Your task to perform on an android device: What is the recent news? Image 0: 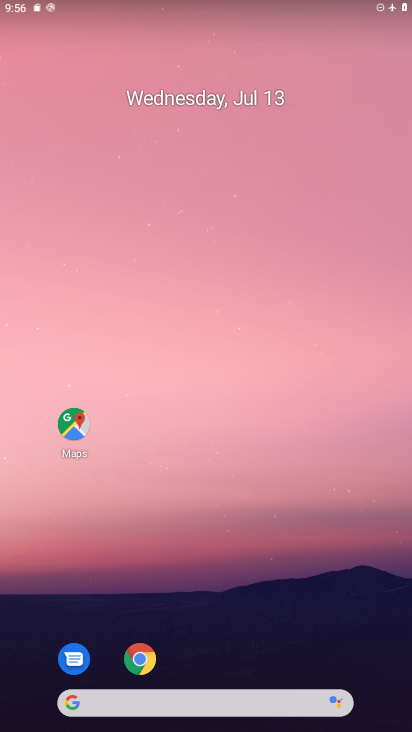
Step 0: drag from (175, 5) to (182, 502)
Your task to perform on an android device: What is the recent news? Image 1: 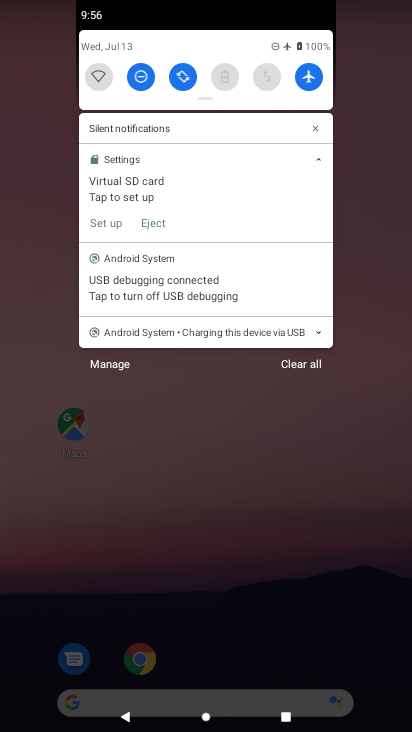
Step 1: click (308, 74)
Your task to perform on an android device: What is the recent news? Image 2: 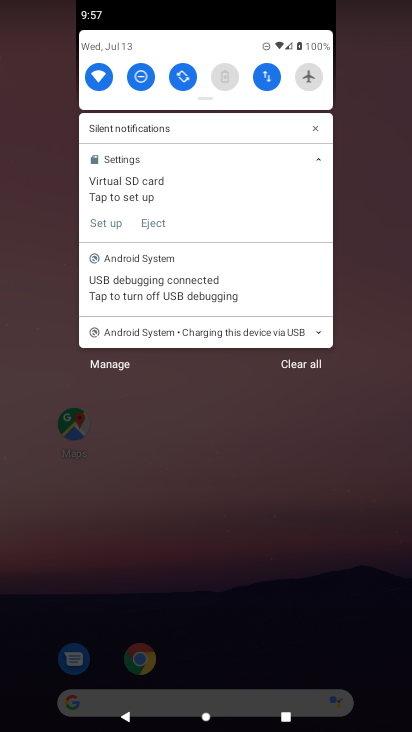
Step 2: task complete